Your task to perform on an android device: Find coffee shops on Maps Image 0: 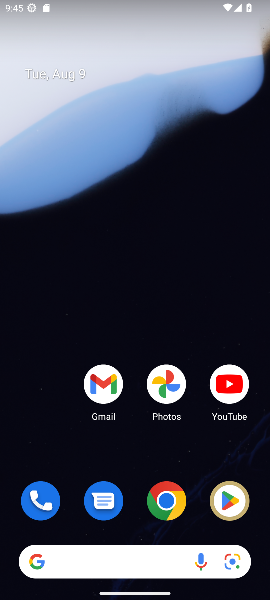
Step 0: drag from (130, 503) to (116, 215)
Your task to perform on an android device: Find coffee shops on Maps Image 1: 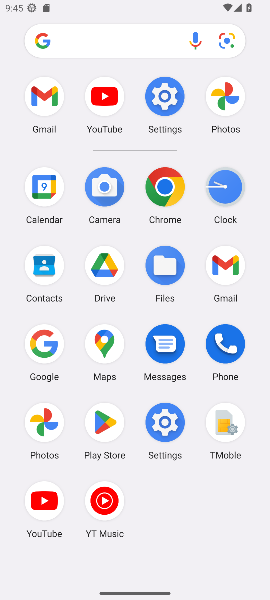
Step 1: click (100, 348)
Your task to perform on an android device: Find coffee shops on Maps Image 2: 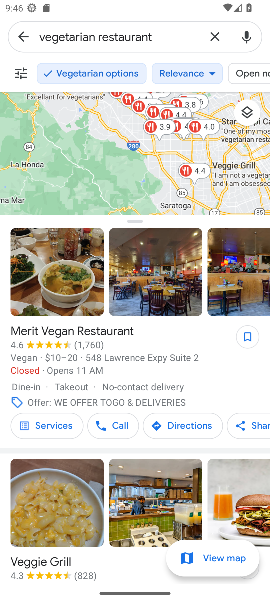
Step 2: click (19, 36)
Your task to perform on an android device: Find coffee shops on Maps Image 3: 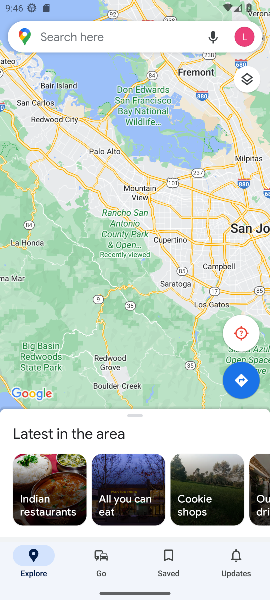
Step 3: click (89, 36)
Your task to perform on an android device: Find coffee shops on Maps Image 4: 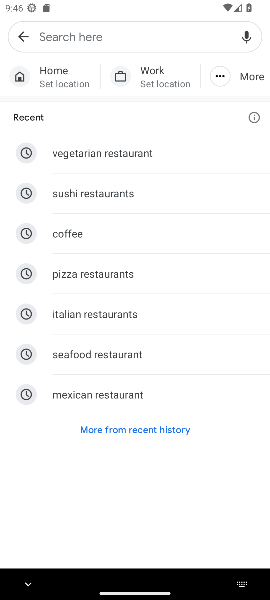
Step 4: type "coffee shops "
Your task to perform on an android device: Find coffee shops on Maps Image 5: 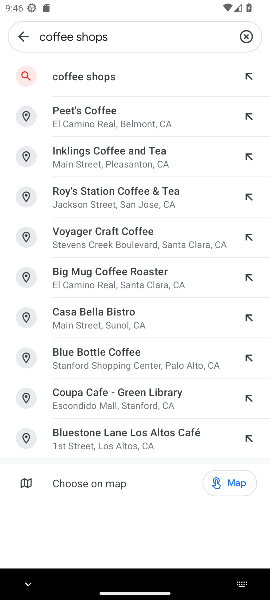
Step 5: click (93, 80)
Your task to perform on an android device: Find coffee shops on Maps Image 6: 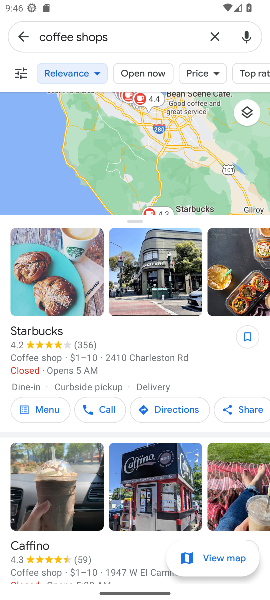
Step 6: task complete